Your task to perform on an android device: Open the calendar app, open the side menu, and click the "Day" option Image 0: 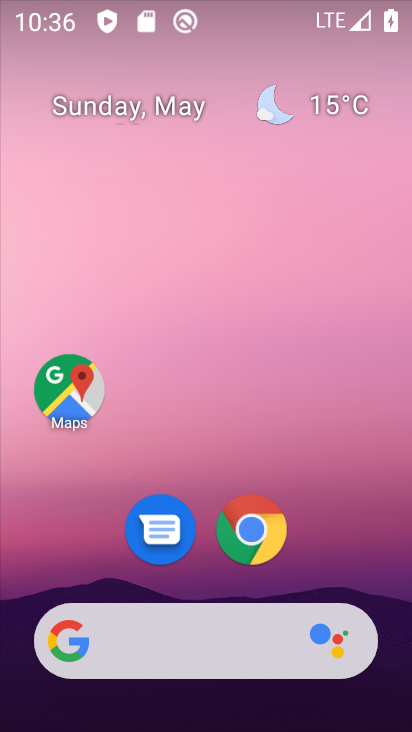
Step 0: drag from (230, 651) to (276, 223)
Your task to perform on an android device: Open the calendar app, open the side menu, and click the "Day" option Image 1: 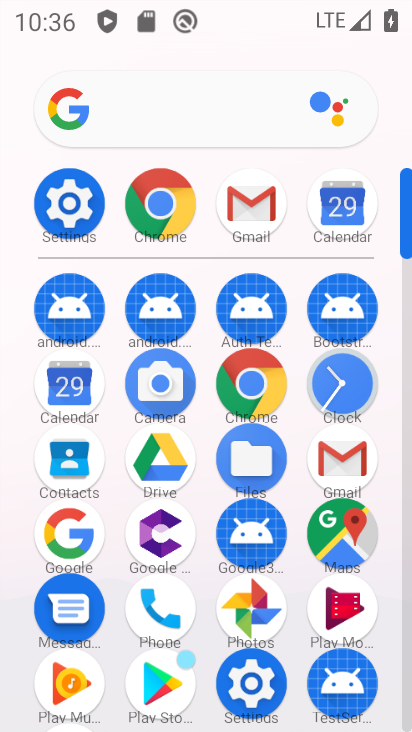
Step 1: click (48, 383)
Your task to perform on an android device: Open the calendar app, open the side menu, and click the "Day" option Image 2: 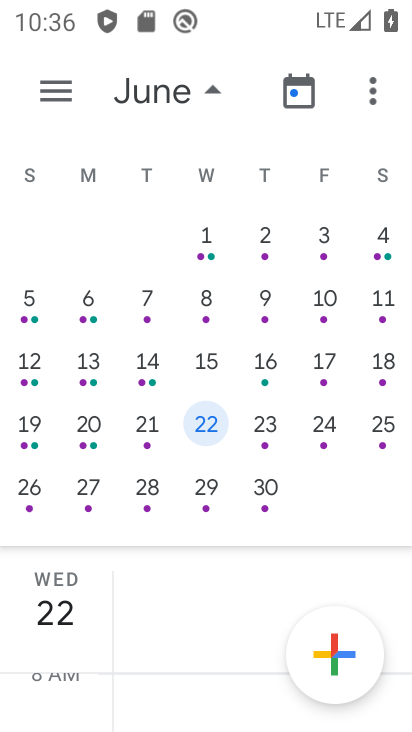
Step 2: click (78, 93)
Your task to perform on an android device: Open the calendar app, open the side menu, and click the "Day" option Image 3: 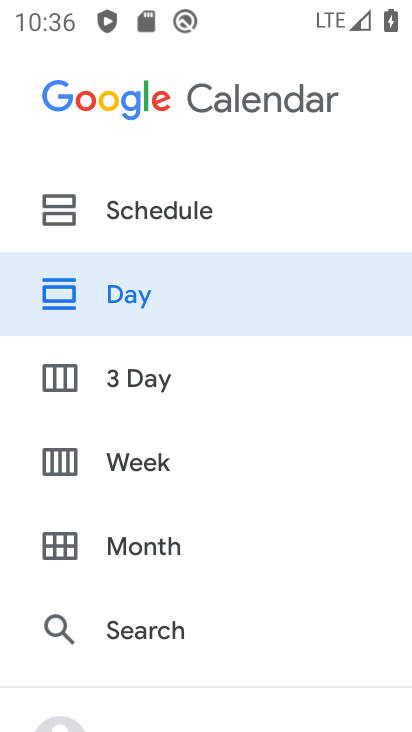
Step 3: task complete